Your task to perform on an android device: Open wifi settings Image 0: 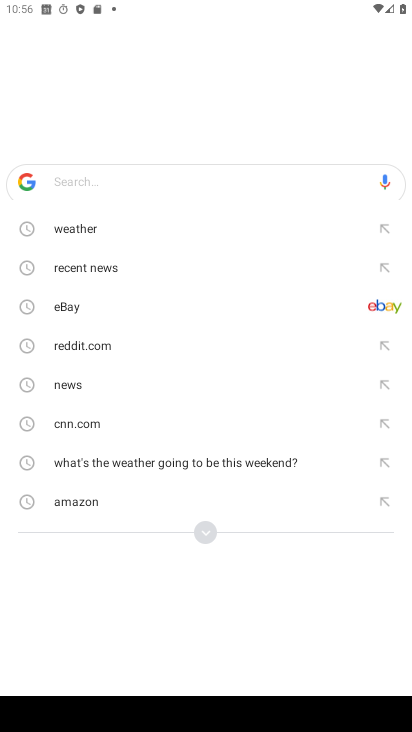
Step 0: press home button
Your task to perform on an android device: Open wifi settings Image 1: 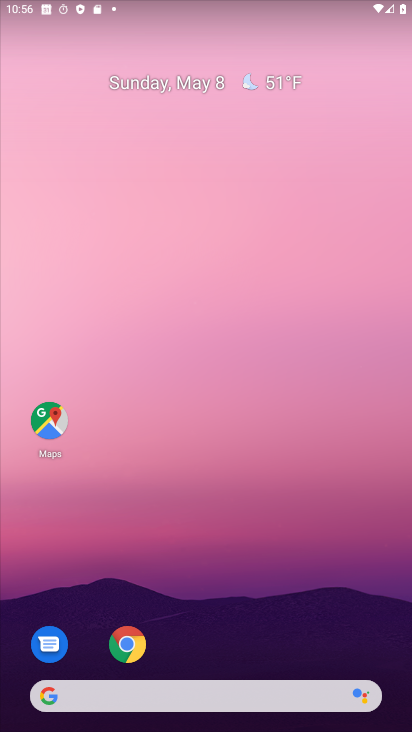
Step 1: drag from (190, 655) to (244, 190)
Your task to perform on an android device: Open wifi settings Image 2: 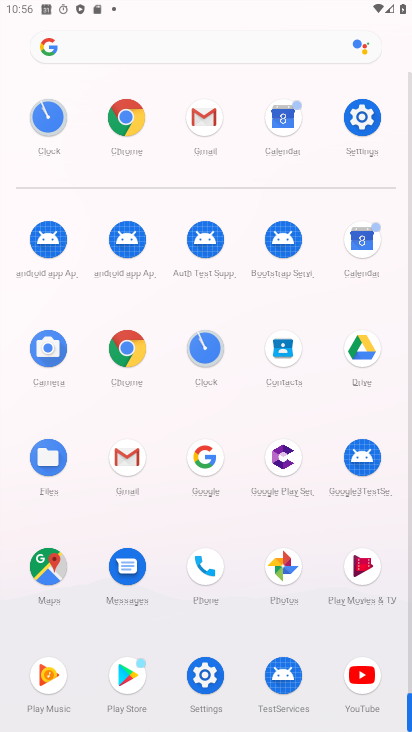
Step 2: click (370, 122)
Your task to perform on an android device: Open wifi settings Image 3: 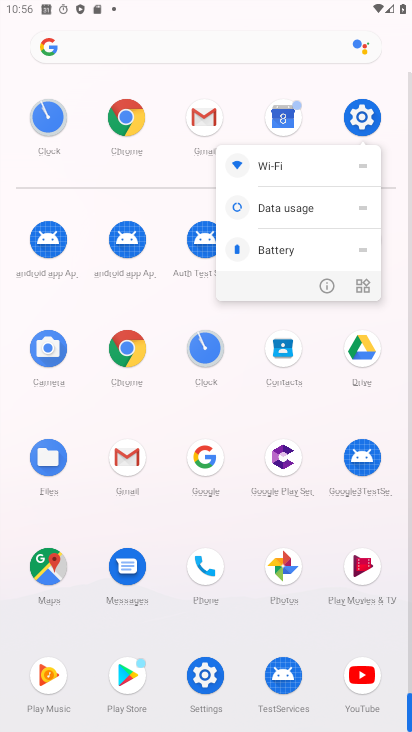
Step 3: click (330, 284)
Your task to perform on an android device: Open wifi settings Image 4: 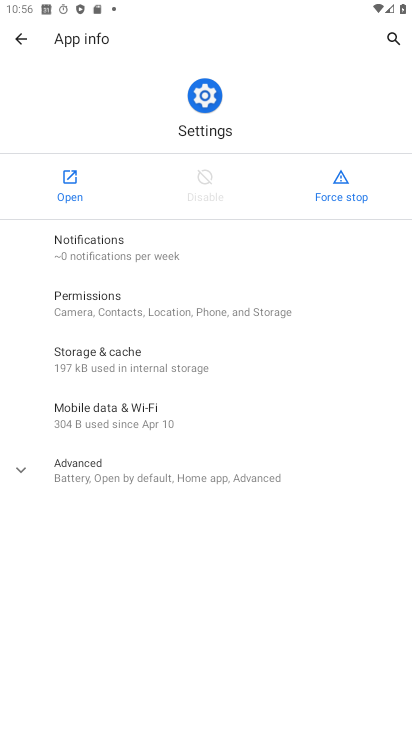
Step 4: click (75, 186)
Your task to perform on an android device: Open wifi settings Image 5: 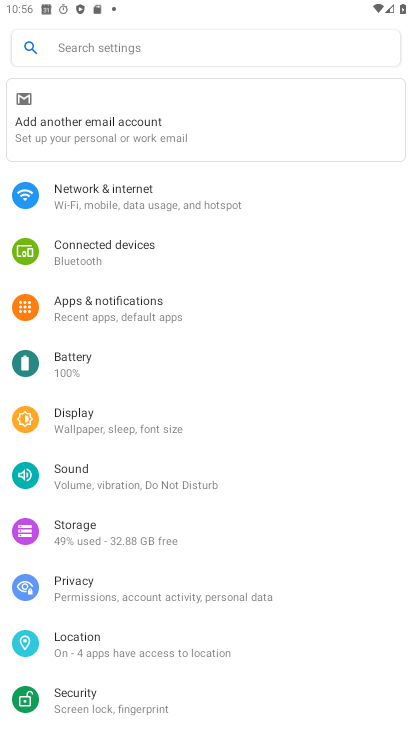
Step 5: click (183, 201)
Your task to perform on an android device: Open wifi settings Image 6: 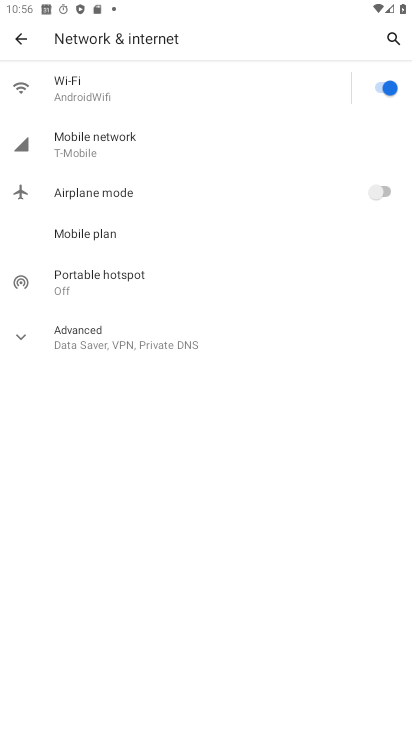
Step 6: click (209, 87)
Your task to perform on an android device: Open wifi settings Image 7: 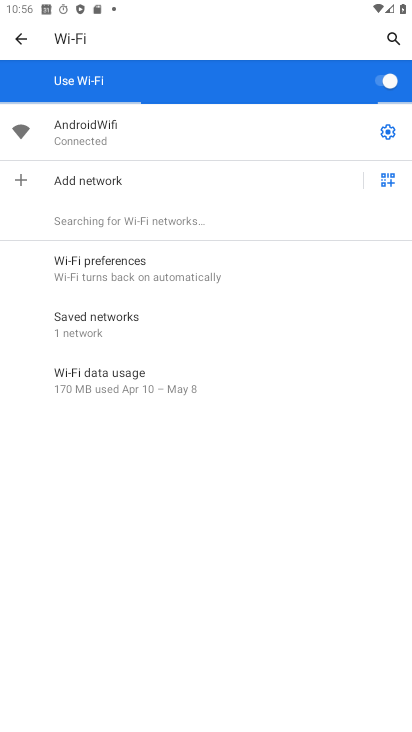
Step 7: click (391, 125)
Your task to perform on an android device: Open wifi settings Image 8: 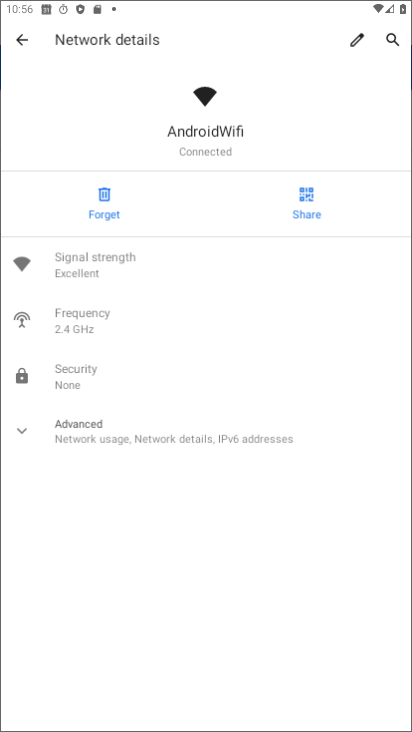
Step 8: task complete